Your task to perform on an android device: Show me productivity apps on the Play Store Image 0: 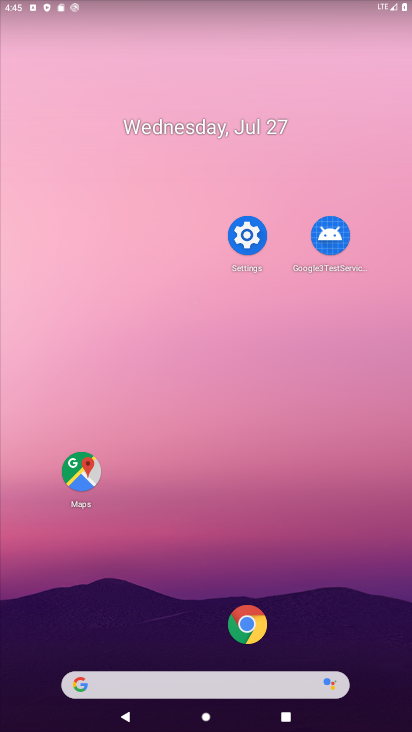
Step 0: drag from (150, 597) to (158, 78)
Your task to perform on an android device: Show me productivity apps on the Play Store Image 1: 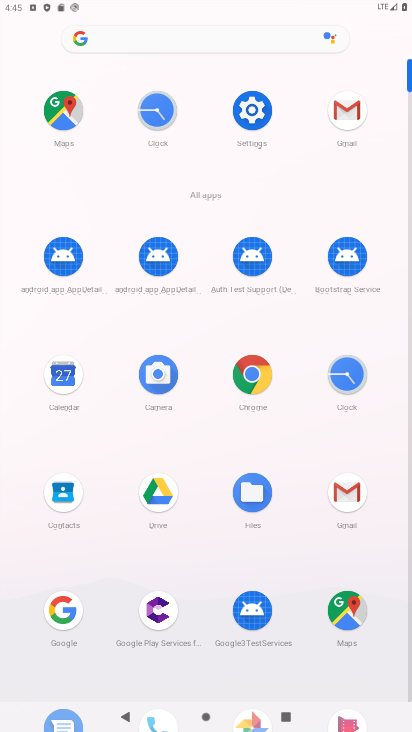
Step 1: drag from (217, 645) to (212, 159)
Your task to perform on an android device: Show me productivity apps on the Play Store Image 2: 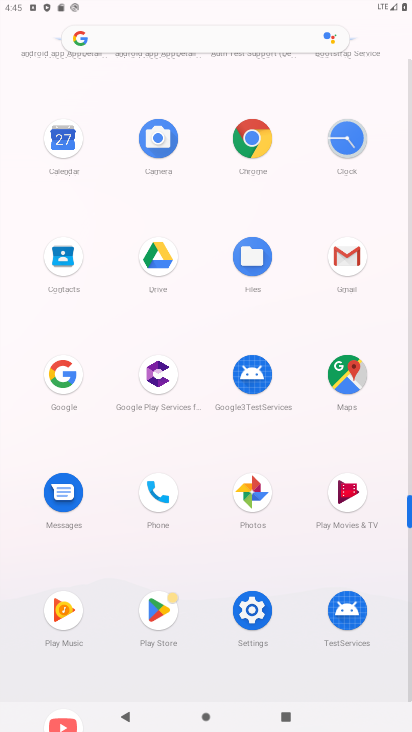
Step 2: click (163, 608)
Your task to perform on an android device: Show me productivity apps on the Play Store Image 3: 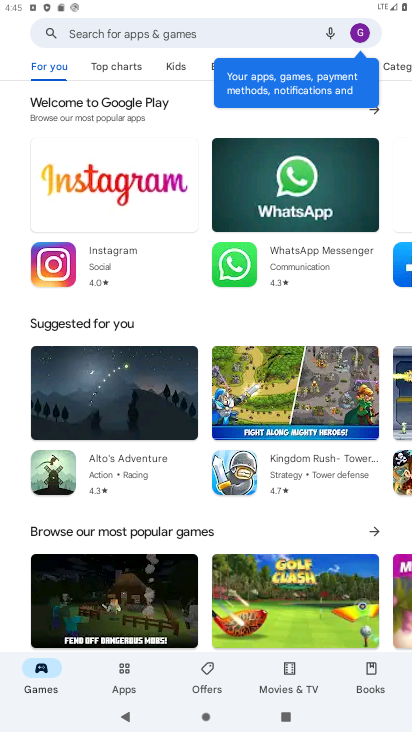
Step 3: click (131, 668)
Your task to perform on an android device: Show me productivity apps on the Play Store Image 4: 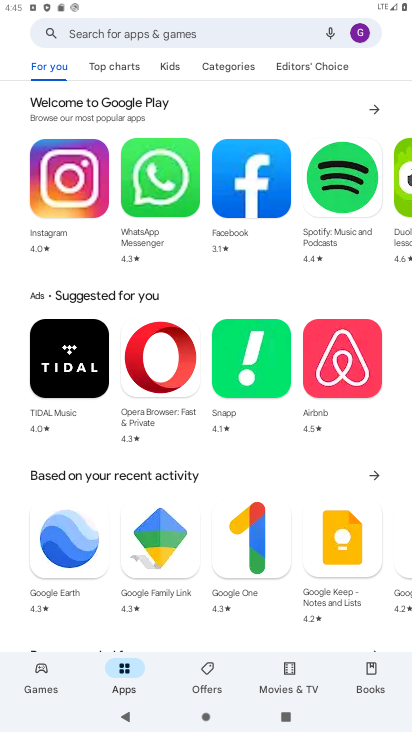
Step 4: click (222, 62)
Your task to perform on an android device: Show me productivity apps on the Play Store Image 5: 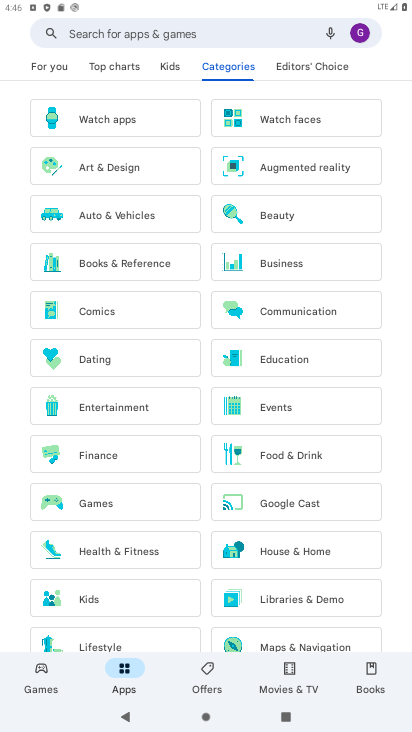
Step 5: drag from (208, 613) to (213, 191)
Your task to perform on an android device: Show me productivity apps on the Play Store Image 6: 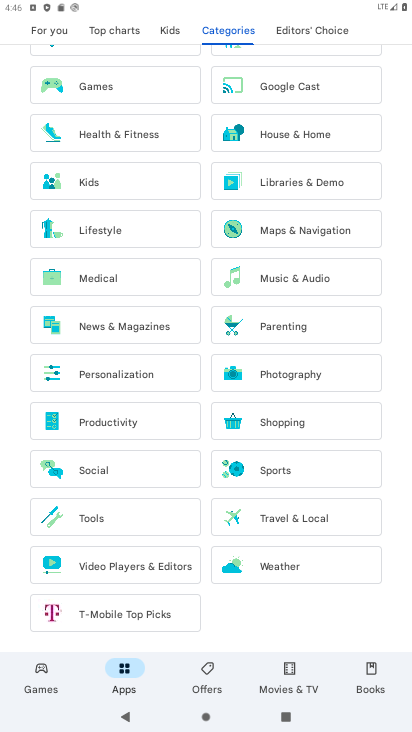
Step 6: click (127, 415)
Your task to perform on an android device: Show me productivity apps on the Play Store Image 7: 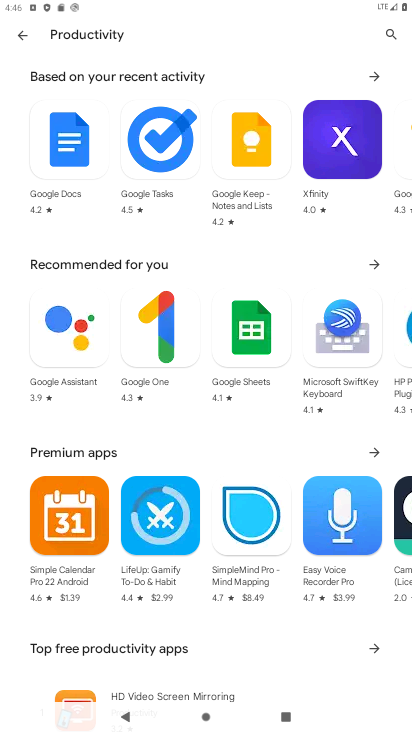
Step 7: task complete